Your task to perform on an android device: Go to display settings Image 0: 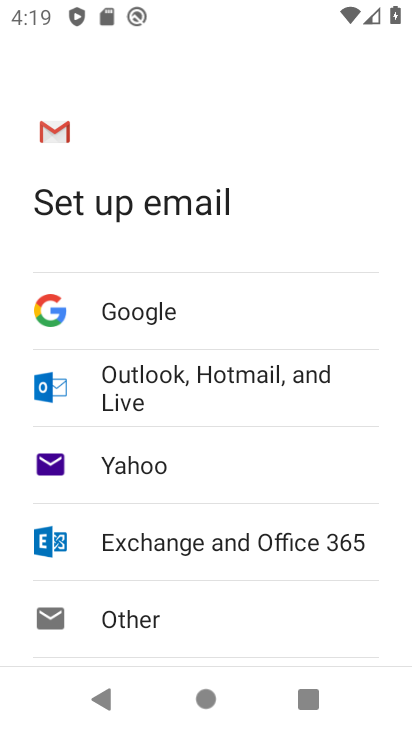
Step 0: drag from (343, 669) to (167, 81)
Your task to perform on an android device: Go to display settings Image 1: 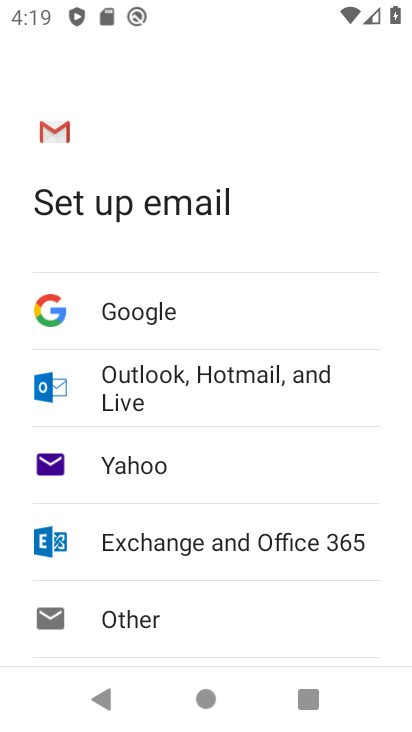
Step 1: press back button
Your task to perform on an android device: Go to display settings Image 2: 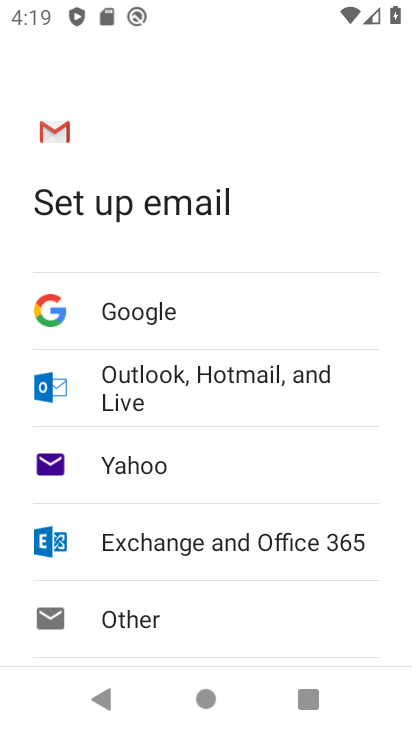
Step 2: press back button
Your task to perform on an android device: Go to display settings Image 3: 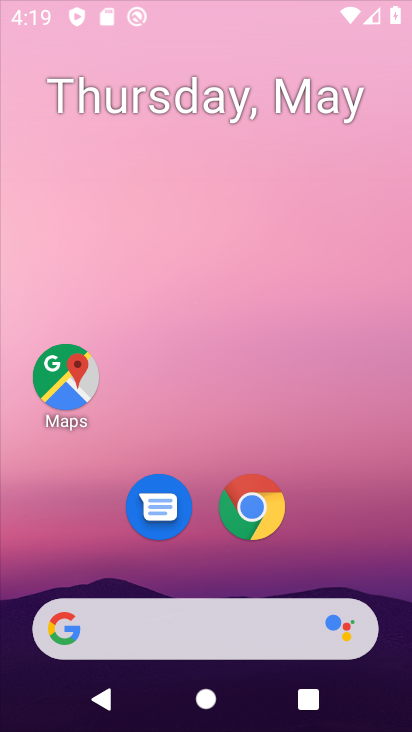
Step 3: press back button
Your task to perform on an android device: Go to display settings Image 4: 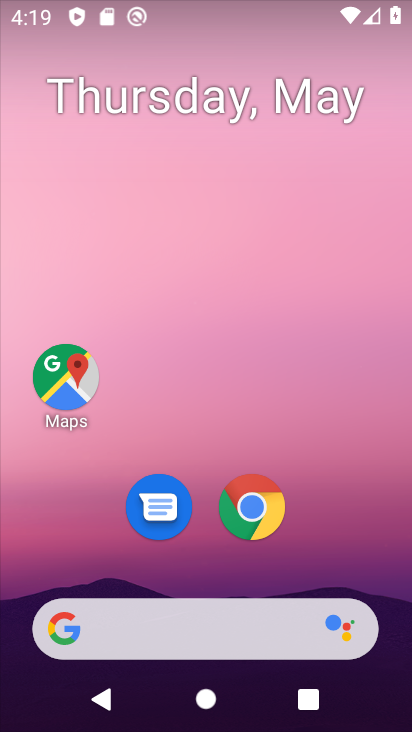
Step 4: drag from (334, 588) to (163, 96)
Your task to perform on an android device: Go to display settings Image 5: 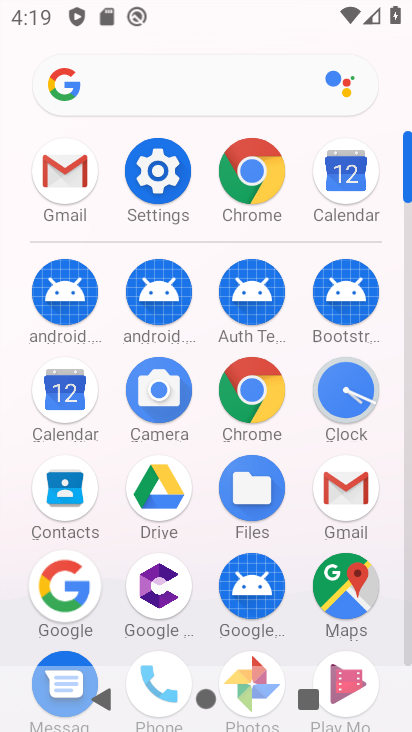
Step 5: click (165, 156)
Your task to perform on an android device: Go to display settings Image 6: 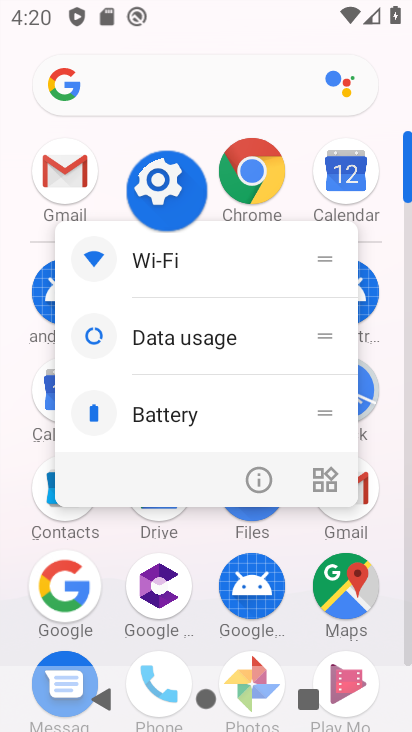
Step 6: click (174, 173)
Your task to perform on an android device: Go to display settings Image 7: 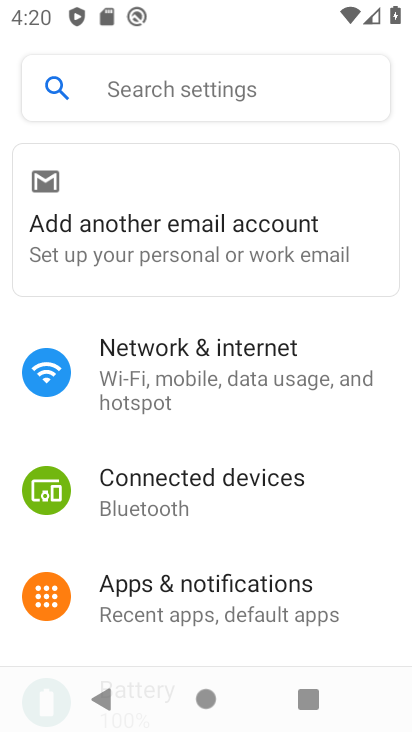
Step 7: drag from (167, 469) to (157, 179)
Your task to perform on an android device: Go to display settings Image 8: 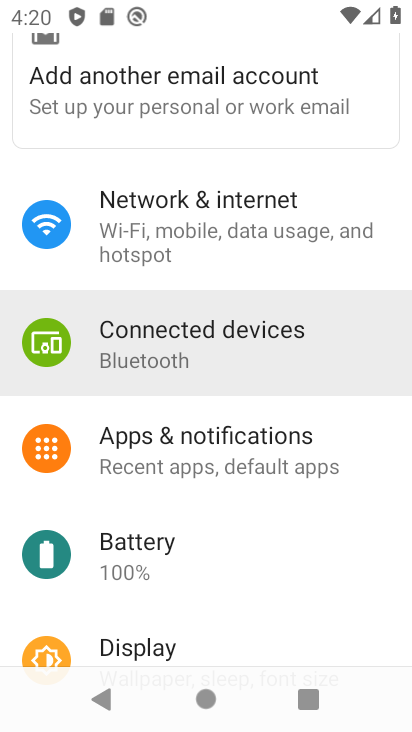
Step 8: drag from (183, 492) to (113, 152)
Your task to perform on an android device: Go to display settings Image 9: 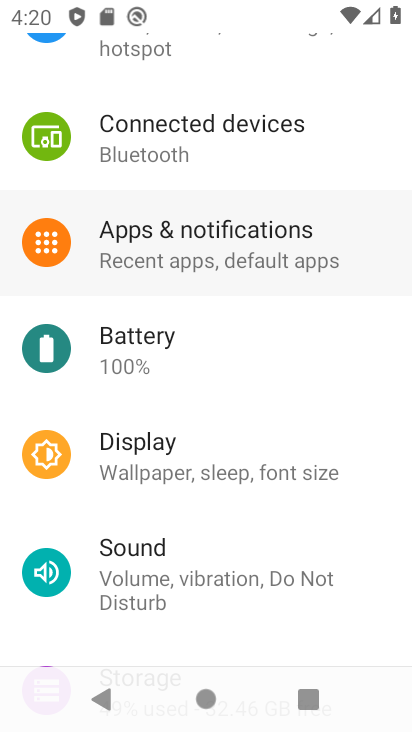
Step 9: drag from (277, 540) to (153, 165)
Your task to perform on an android device: Go to display settings Image 10: 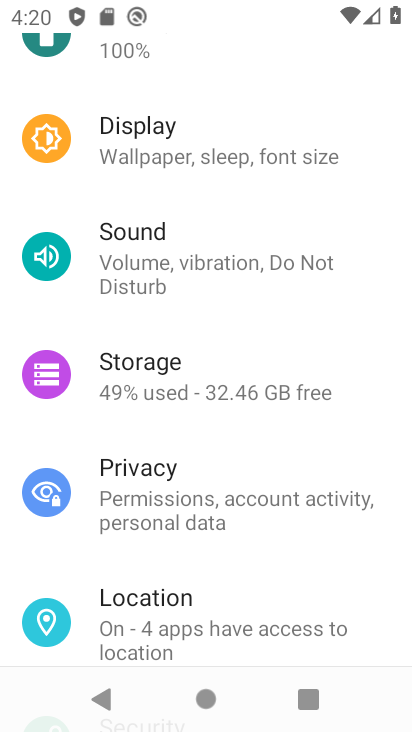
Step 10: click (124, 139)
Your task to perform on an android device: Go to display settings Image 11: 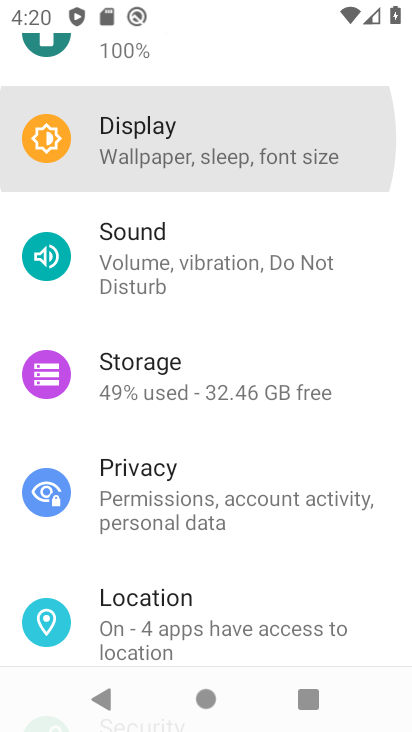
Step 11: click (130, 147)
Your task to perform on an android device: Go to display settings Image 12: 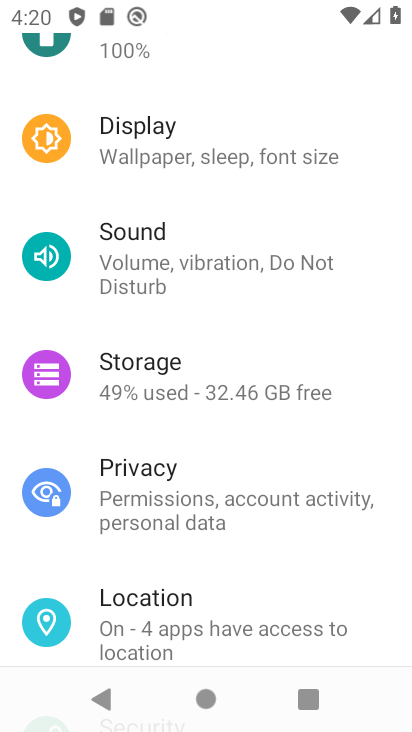
Step 12: click (140, 149)
Your task to perform on an android device: Go to display settings Image 13: 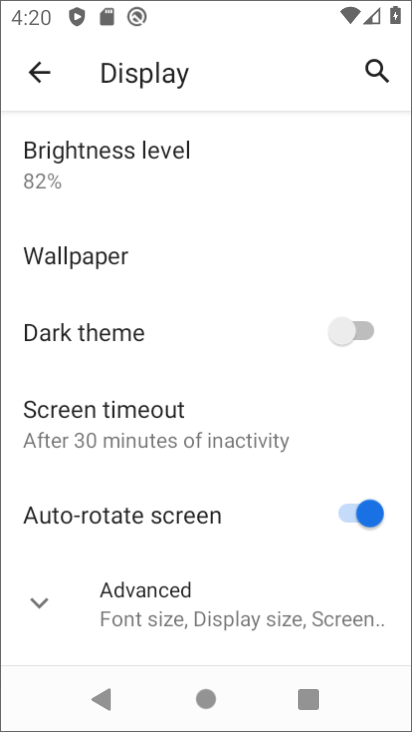
Step 13: click (142, 145)
Your task to perform on an android device: Go to display settings Image 14: 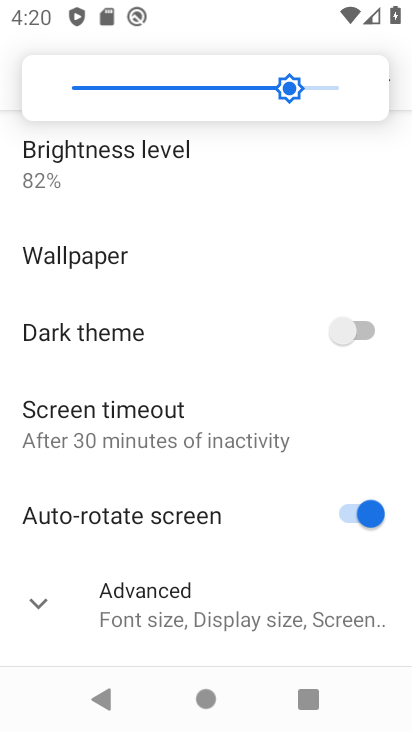
Step 14: task complete